Your task to perform on an android device: empty trash in the gmail app Image 0: 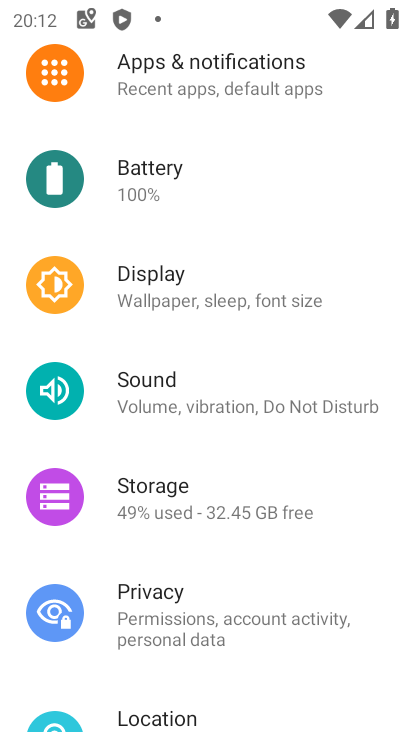
Step 0: press home button
Your task to perform on an android device: empty trash in the gmail app Image 1: 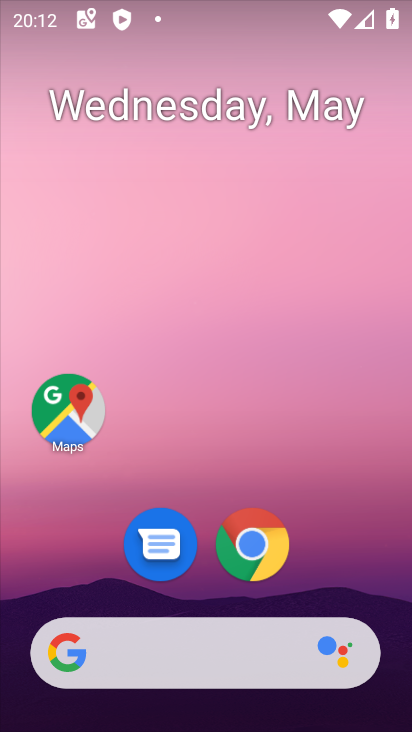
Step 1: drag from (200, 575) to (310, 132)
Your task to perform on an android device: empty trash in the gmail app Image 2: 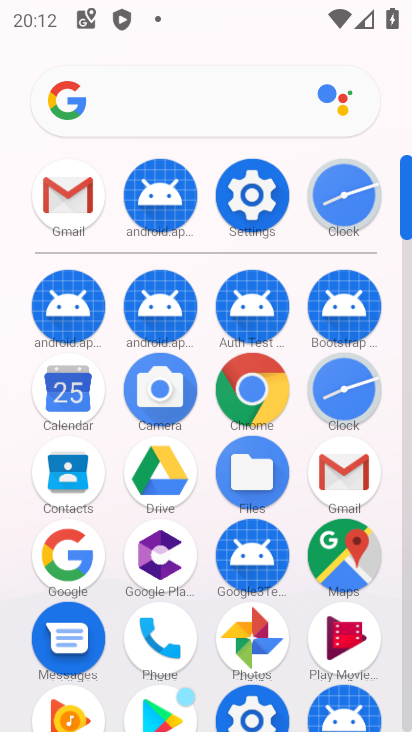
Step 2: click (67, 229)
Your task to perform on an android device: empty trash in the gmail app Image 3: 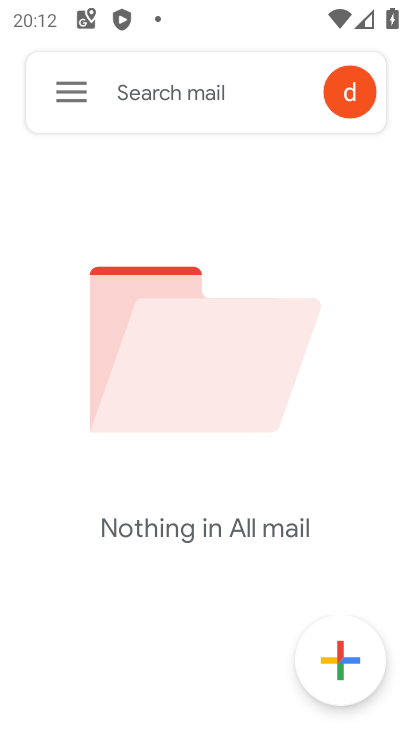
Step 3: click (85, 90)
Your task to perform on an android device: empty trash in the gmail app Image 4: 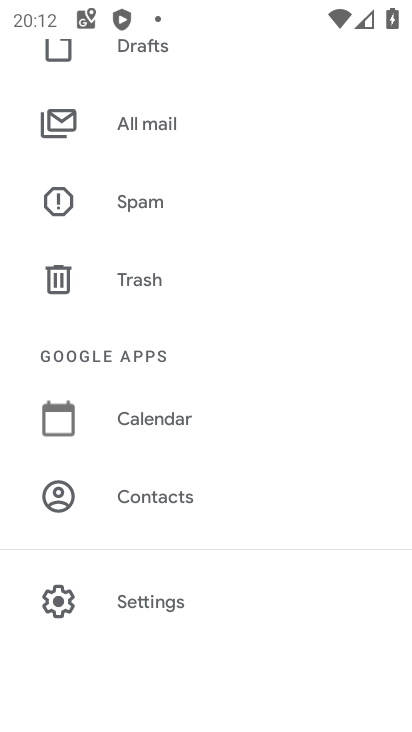
Step 4: click (105, 301)
Your task to perform on an android device: empty trash in the gmail app Image 5: 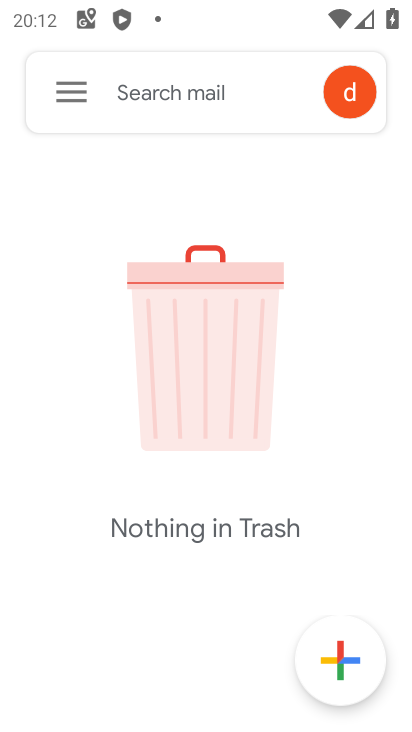
Step 5: task complete